Your task to perform on an android device: change the clock display to digital Image 0: 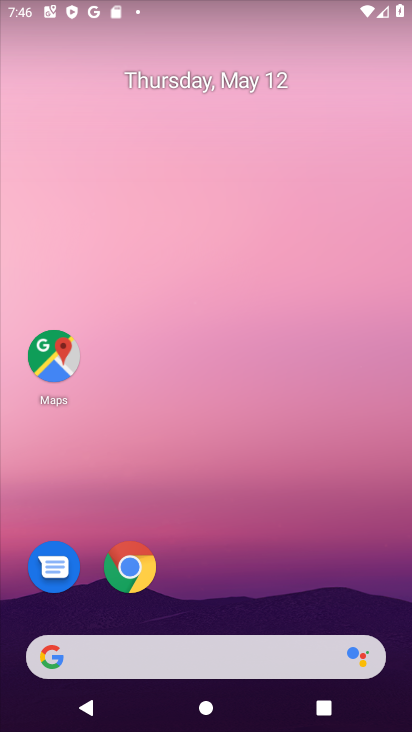
Step 0: drag from (171, 649) to (235, 143)
Your task to perform on an android device: change the clock display to digital Image 1: 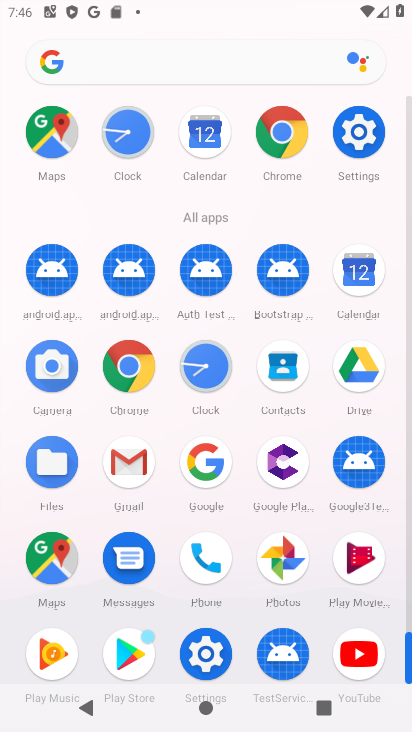
Step 1: click (209, 387)
Your task to perform on an android device: change the clock display to digital Image 2: 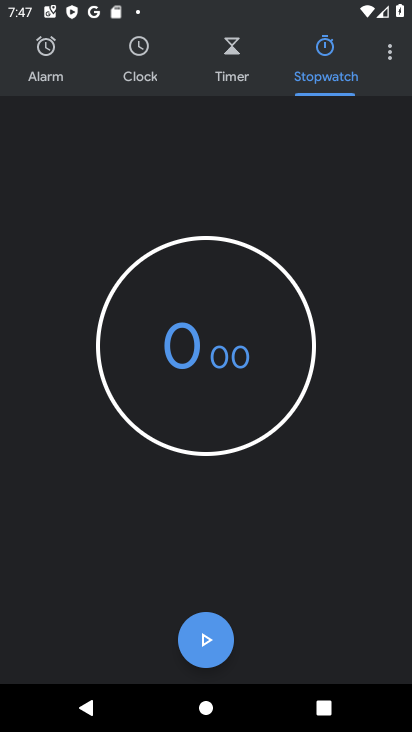
Step 2: click (394, 67)
Your task to perform on an android device: change the clock display to digital Image 3: 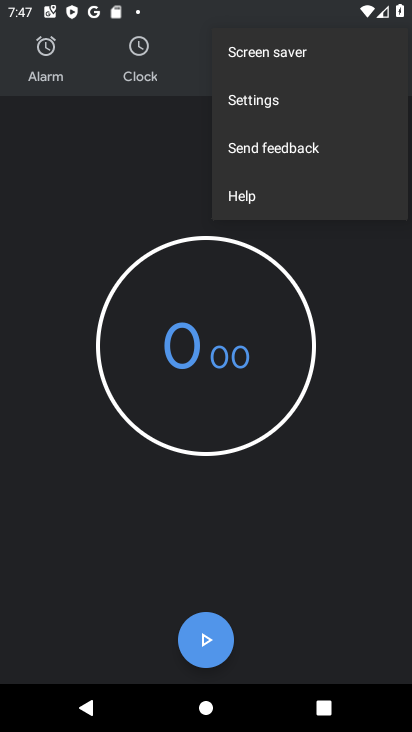
Step 3: click (317, 83)
Your task to perform on an android device: change the clock display to digital Image 4: 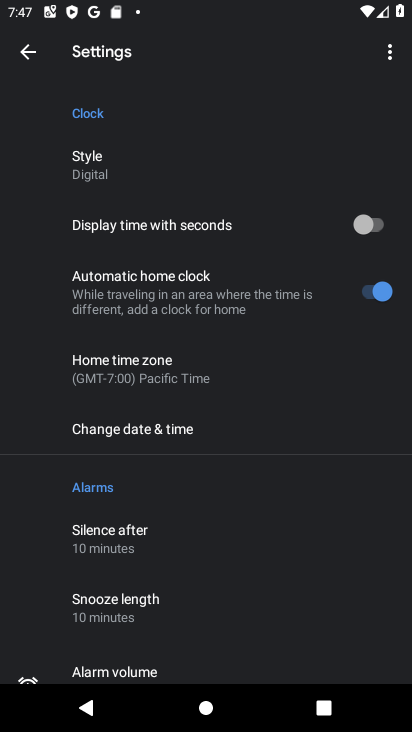
Step 4: click (177, 166)
Your task to perform on an android device: change the clock display to digital Image 5: 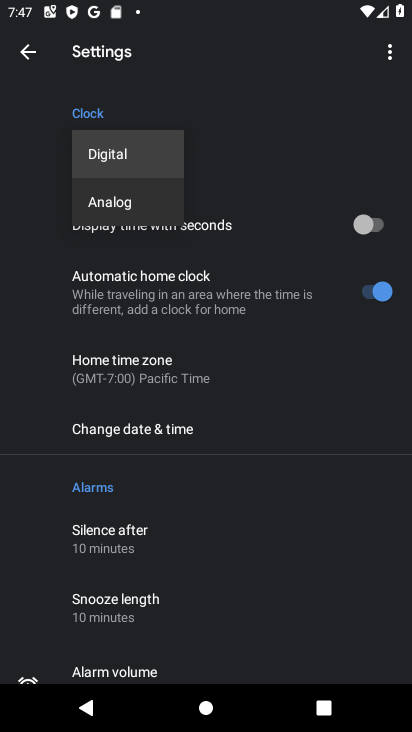
Step 5: task complete